Your task to perform on an android device: change the upload size in google photos Image 0: 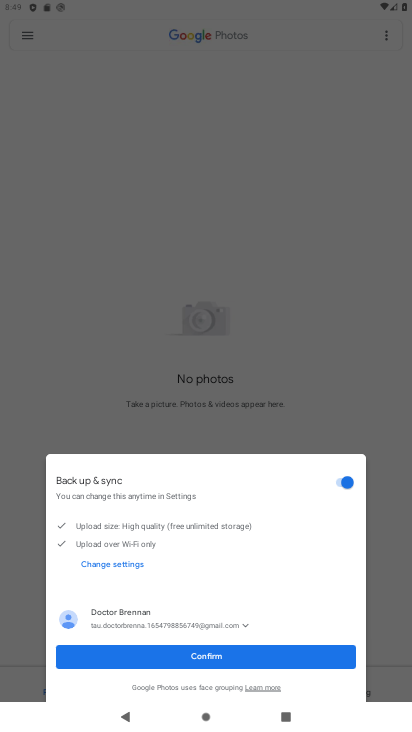
Step 0: press home button
Your task to perform on an android device: change the upload size in google photos Image 1: 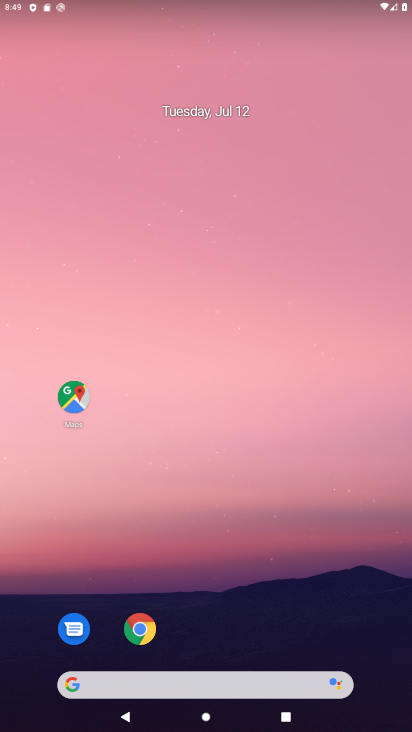
Step 1: drag from (395, 392) to (344, 253)
Your task to perform on an android device: change the upload size in google photos Image 2: 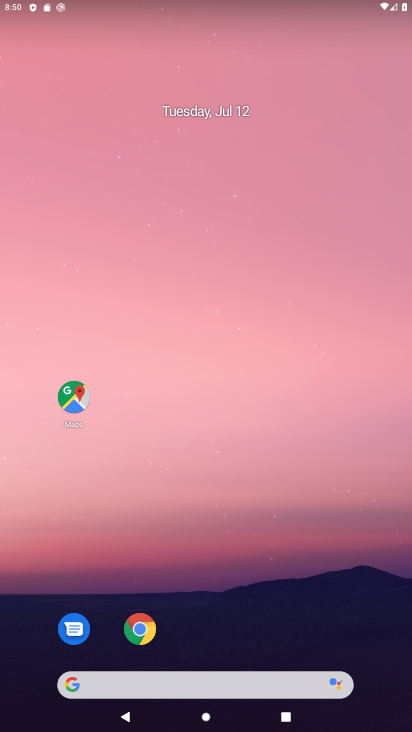
Step 2: drag from (201, 607) to (222, 12)
Your task to perform on an android device: change the upload size in google photos Image 3: 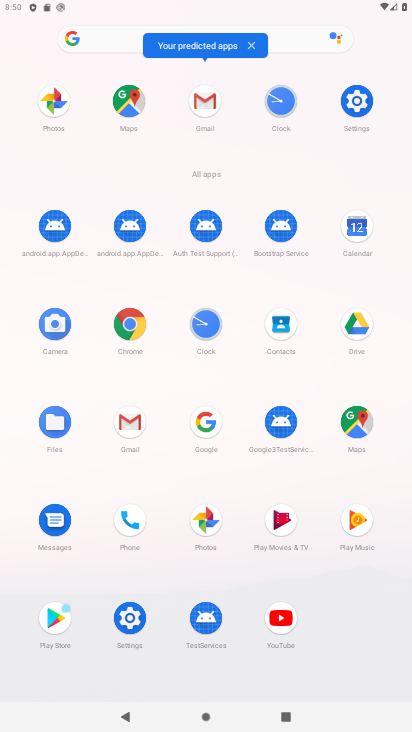
Step 3: click (54, 103)
Your task to perform on an android device: change the upload size in google photos Image 4: 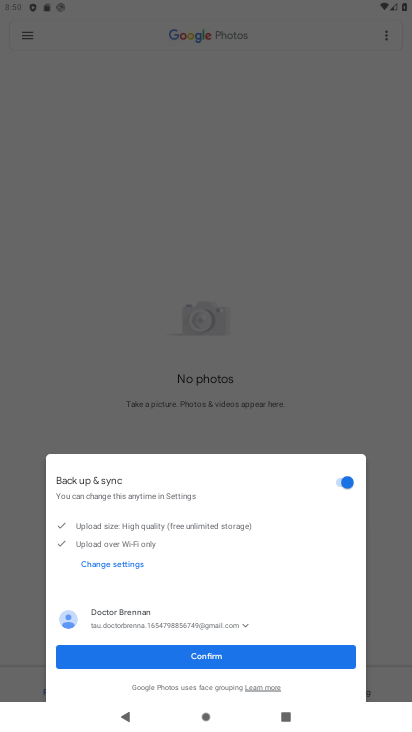
Step 4: click (341, 654)
Your task to perform on an android device: change the upload size in google photos Image 5: 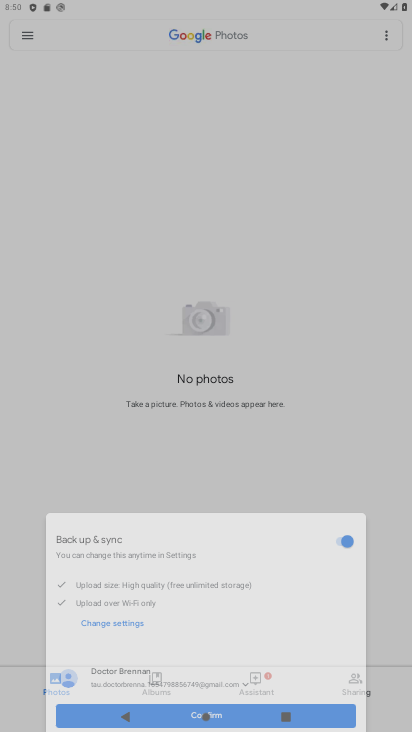
Step 5: click (341, 654)
Your task to perform on an android device: change the upload size in google photos Image 6: 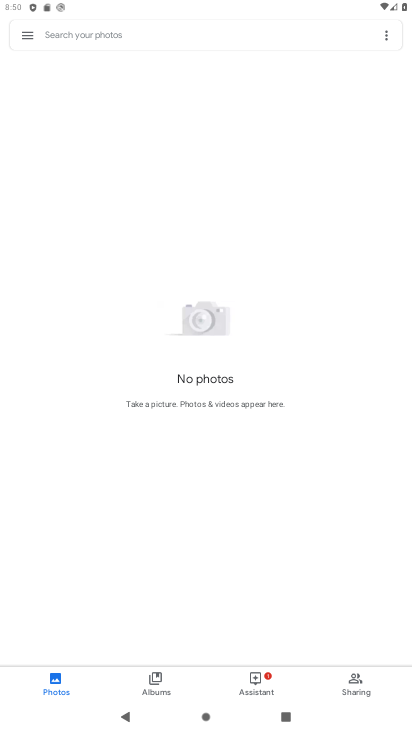
Step 6: click (33, 33)
Your task to perform on an android device: change the upload size in google photos Image 7: 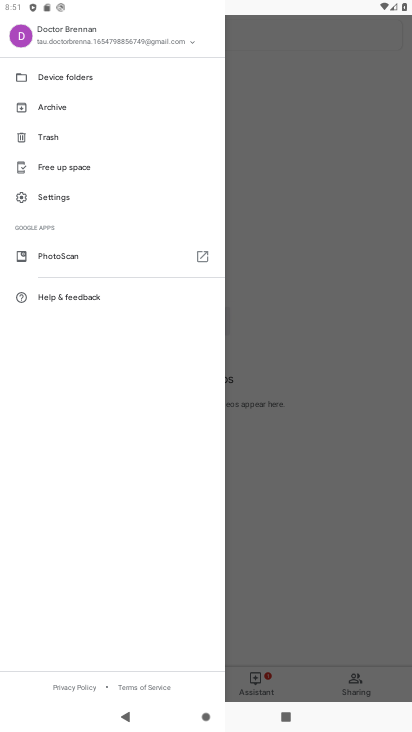
Step 7: click (78, 198)
Your task to perform on an android device: change the upload size in google photos Image 8: 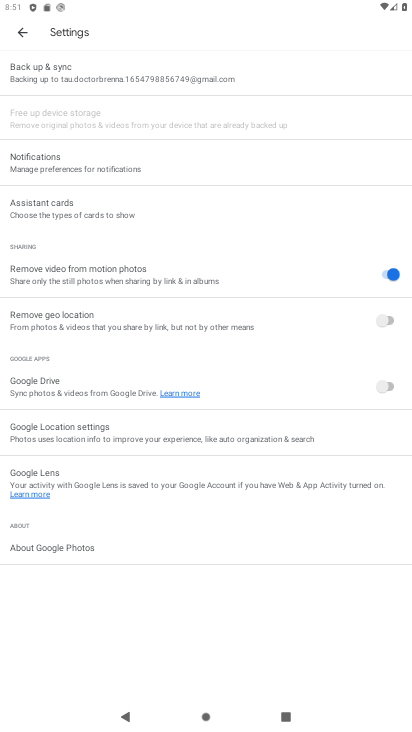
Step 8: click (66, 82)
Your task to perform on an android device: change the upload size in google photos Image 9: 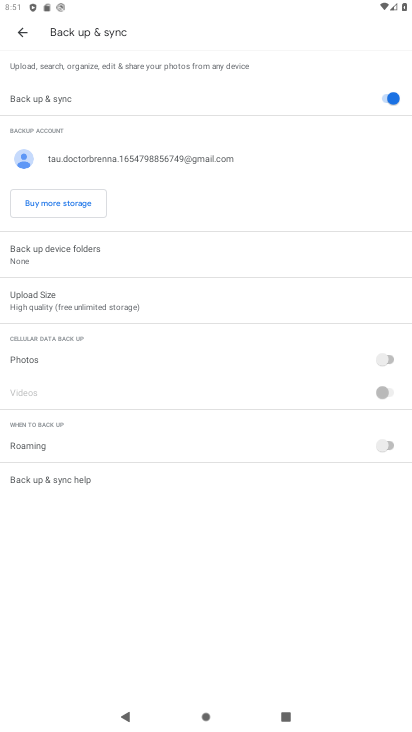
Step 9: click (103, 291)
Your task to perform on an android device: change the upload size in google photos Image 10: 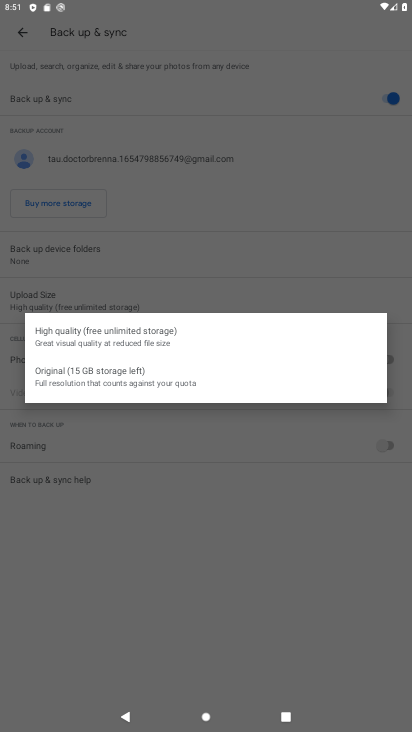
Step 10: click (154, 369)
Your task to perform on an android device: change the upload size in google photos Image 11: 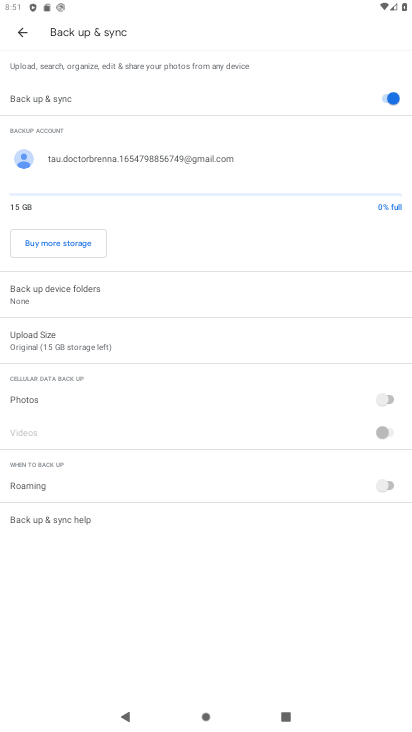
Step 11: task complete